Your task to perform on an android device: Open my contact list Image 0: 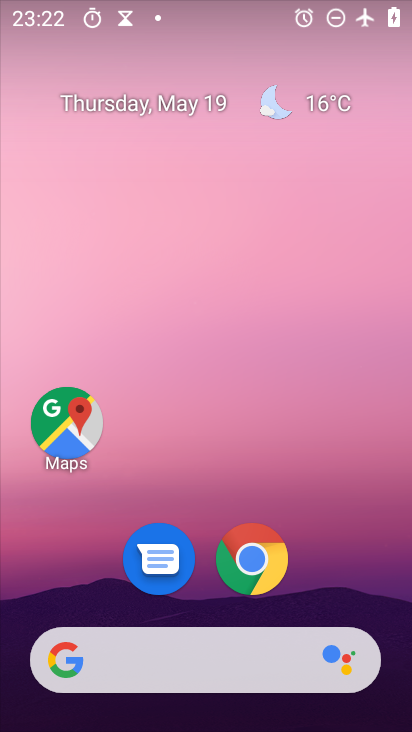
Step 0: drag from (163, 728) to (174, 47)
Your task to perform on an android device: Open my contact list Image 1: 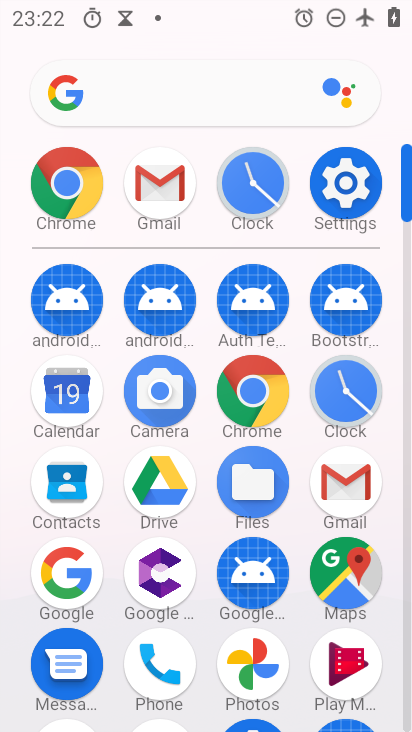
Step 1: click (73, 485)
Your task to perform on an android device: Open my contact list Image 2: 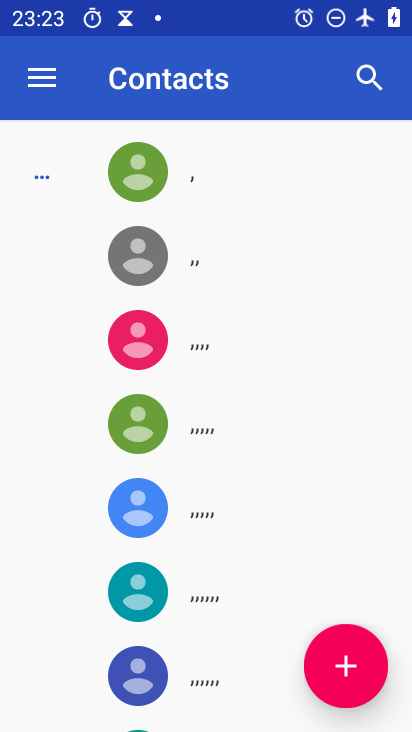
Step 2: task complete